Your task to perform on an android device: Open Google Chrome Image 0: 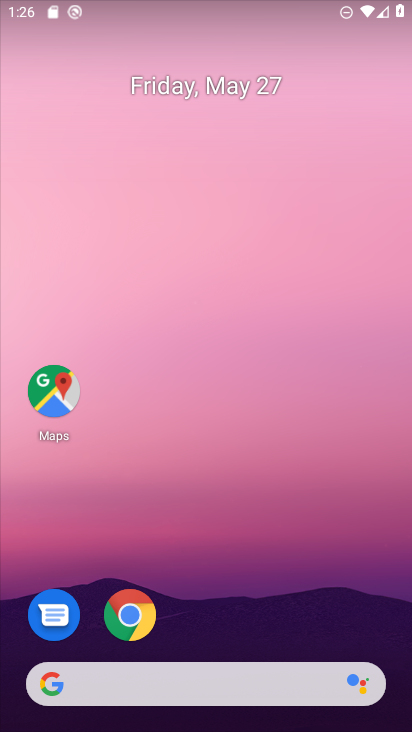
Step 0: click (223, 131)
Your task to perform on an android device: Open Google Chrome Image 1: 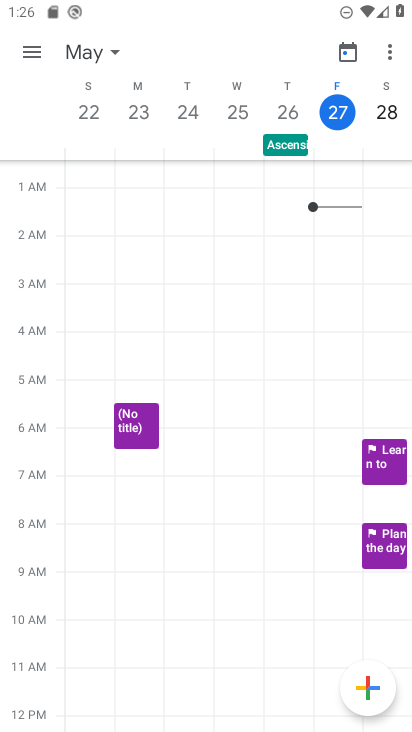
Step 1: press home button
Your task to perform on an android device: Open Google Chrome Image 2: 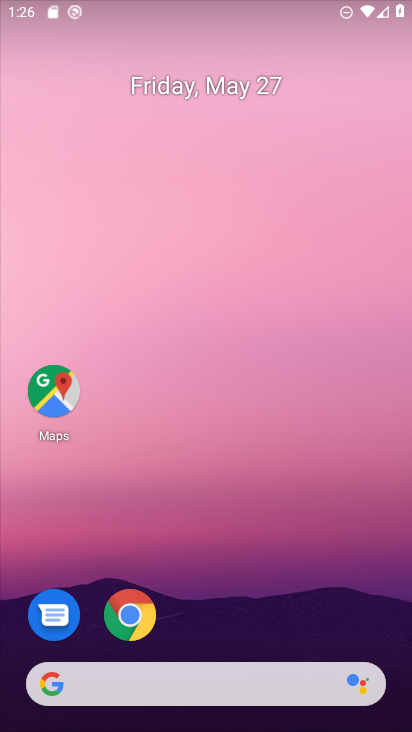
Step 2: drag from (221, 578) to (255, 120)
Your task to perform on an android device: Open Google Chrome Image 3: 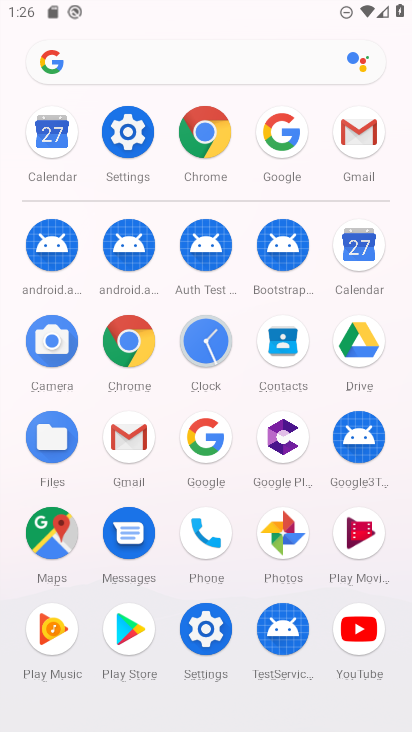
Step 3: click (105, 353)
Your task to perform on an android device: Open Google Chrome Image 4: 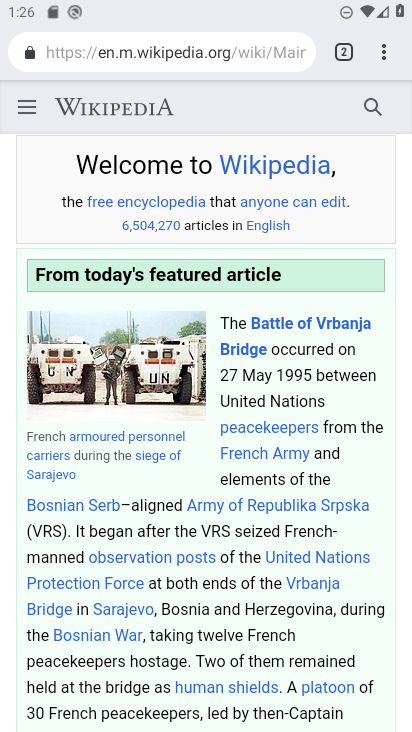
Step 4: task complete